Your task to perform on an android device: Show the shopping cart on target. Add asus zenbook to the cart on target, then select checkout. Image 0: 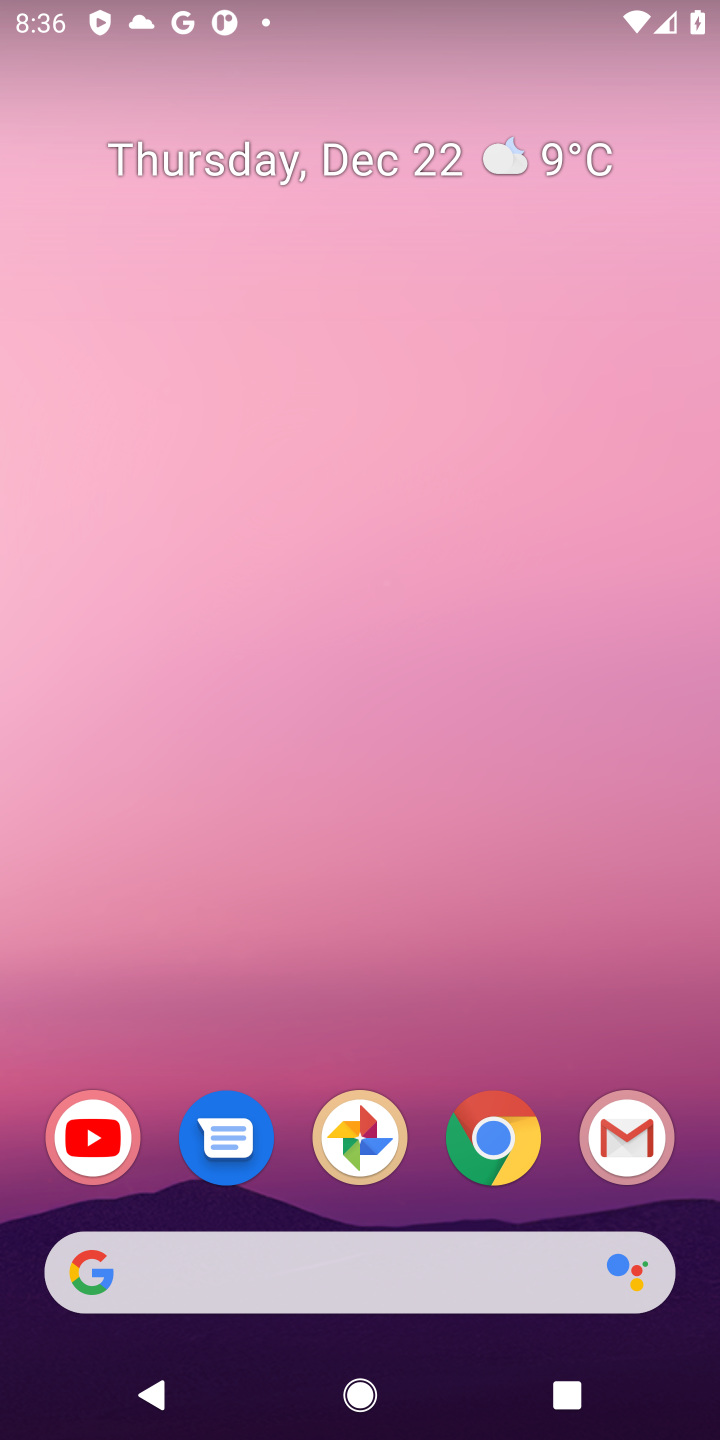
Step 0: click (383, 1294)
Your task to perform on an android device: Show the shopping cart on target. Add asus zenbook to the cart on target, then select checkout. Image 1: 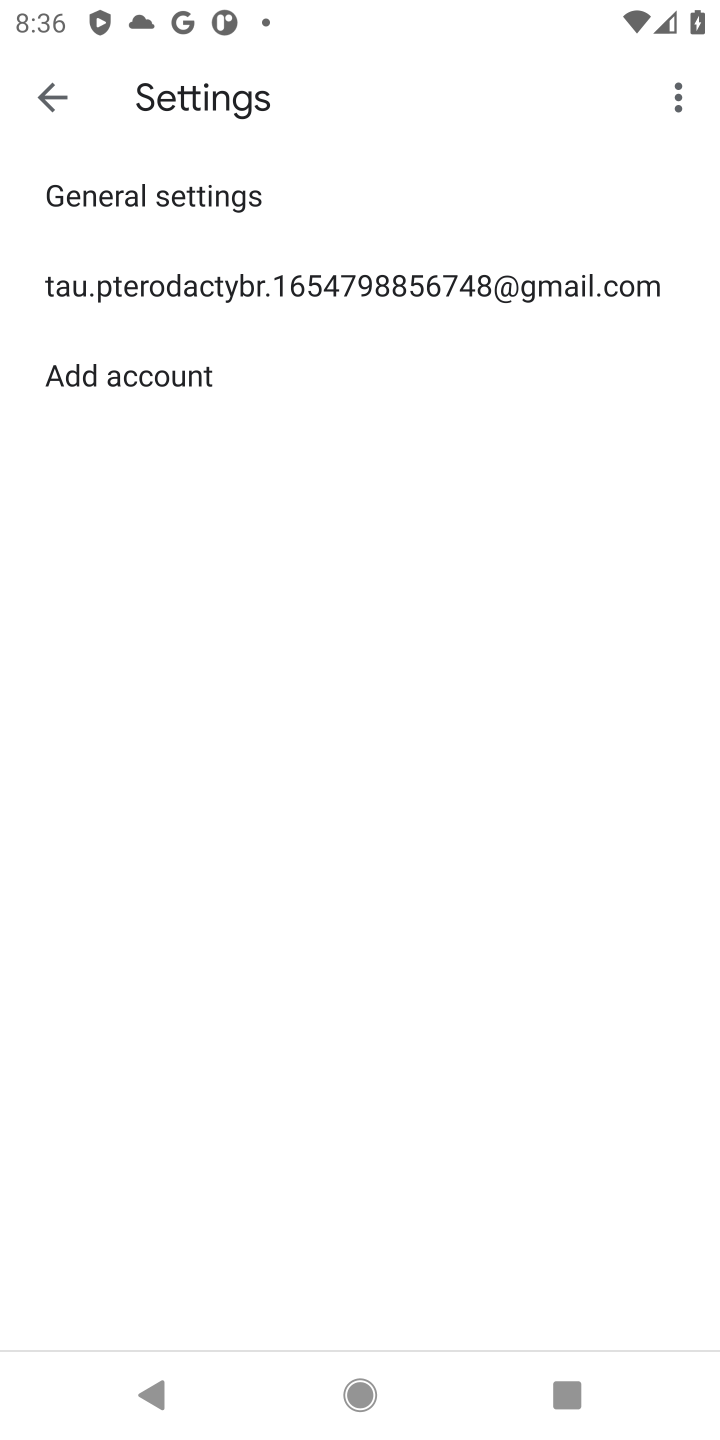
Step 1: press home button
Your task to perform on an android device: Show the shopping cart on target. Add asus zenbook to the cart on target, then select checkout. Image 2: 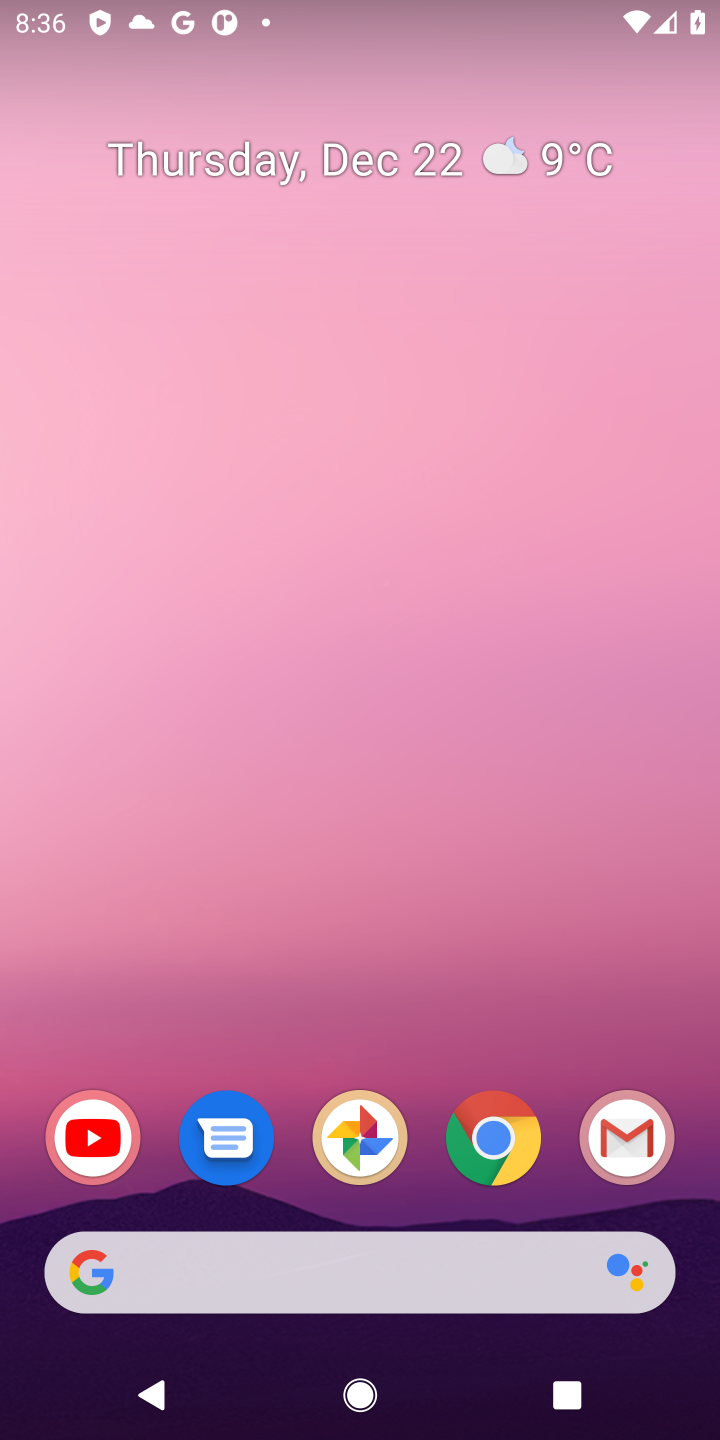
Step 2: click (521, 1164)
Your task to perform on an android device: Show the shopping cart on target. Add asus zenbook to the cart on target, then select checkout. Image 3: 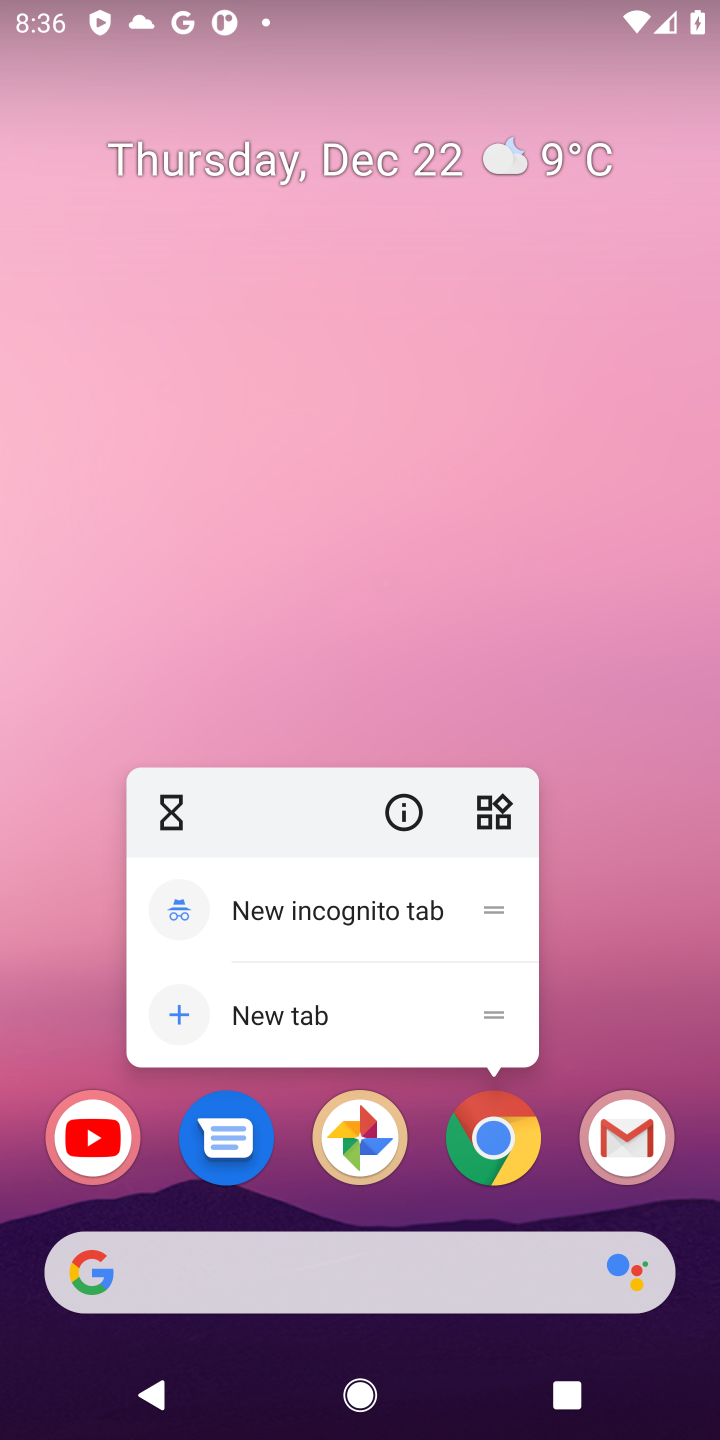
Step 3: click (518, 1155)
Your task to perform on an android device: Show the shopping cart on target. Add asus zenbook to the cart on target, then select checkout. Image 4: 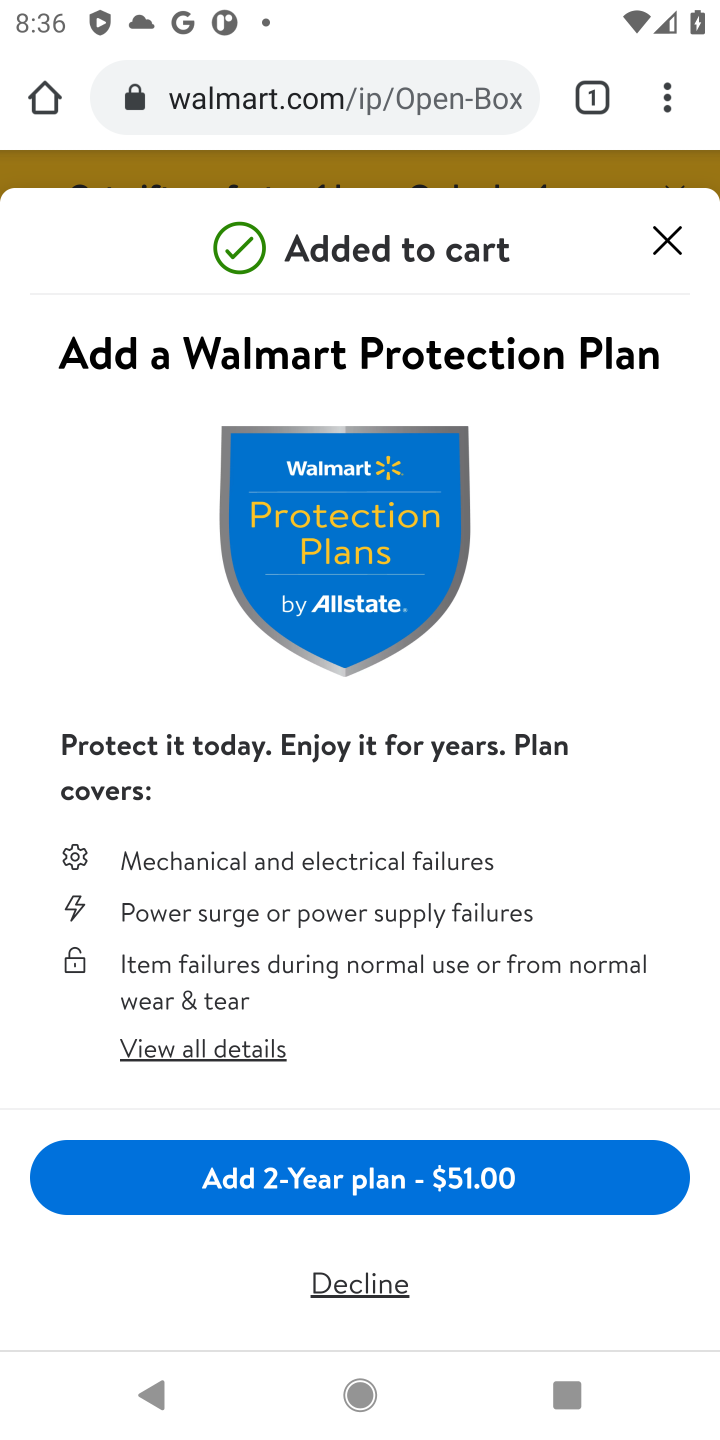
Step 4: click (316, 103)
Your task to perform on an android device: Show the shopping cart on target. Add asus zenbook to the cart on target, then select checkout. Image 5: 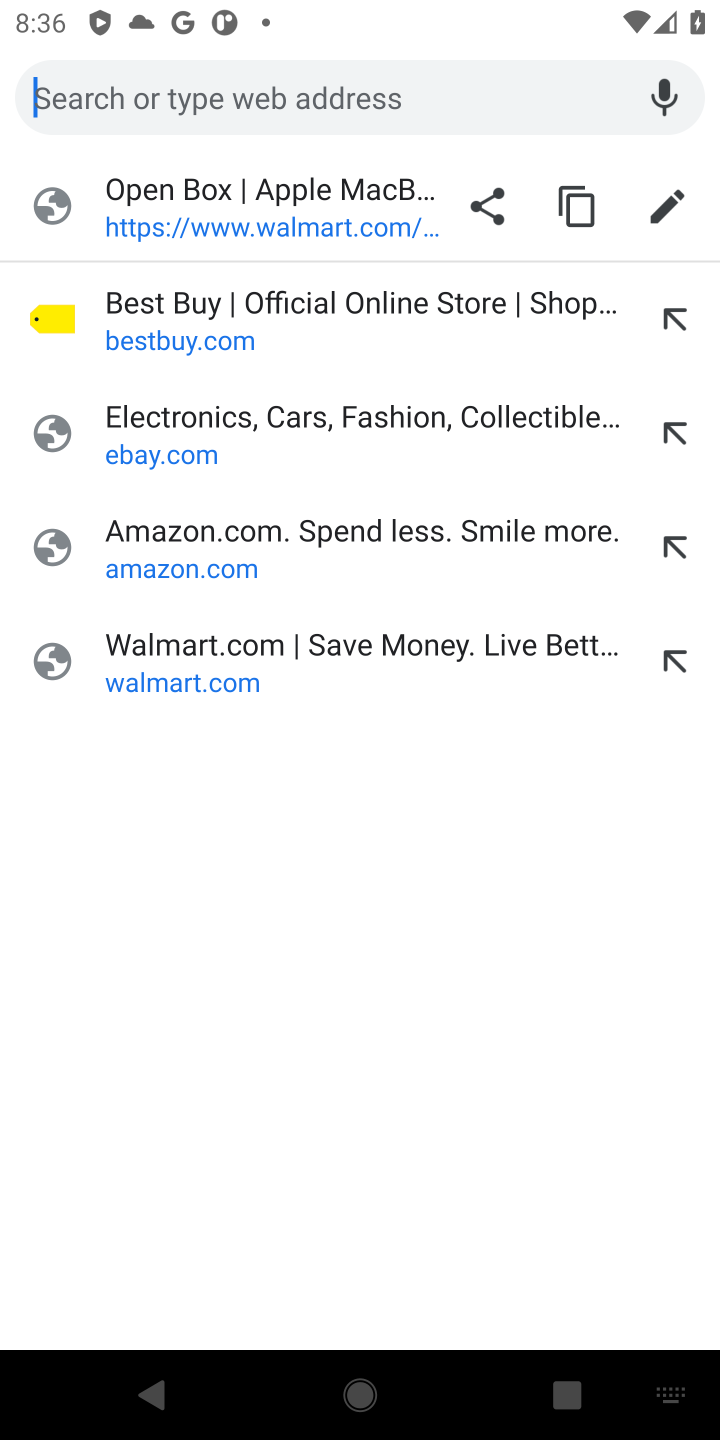
Step 5: type "target"
Your task to perform on an android device: Show the shopping cart on target. Add asus zenbook to the cart on target, then select checkout. Image 6: 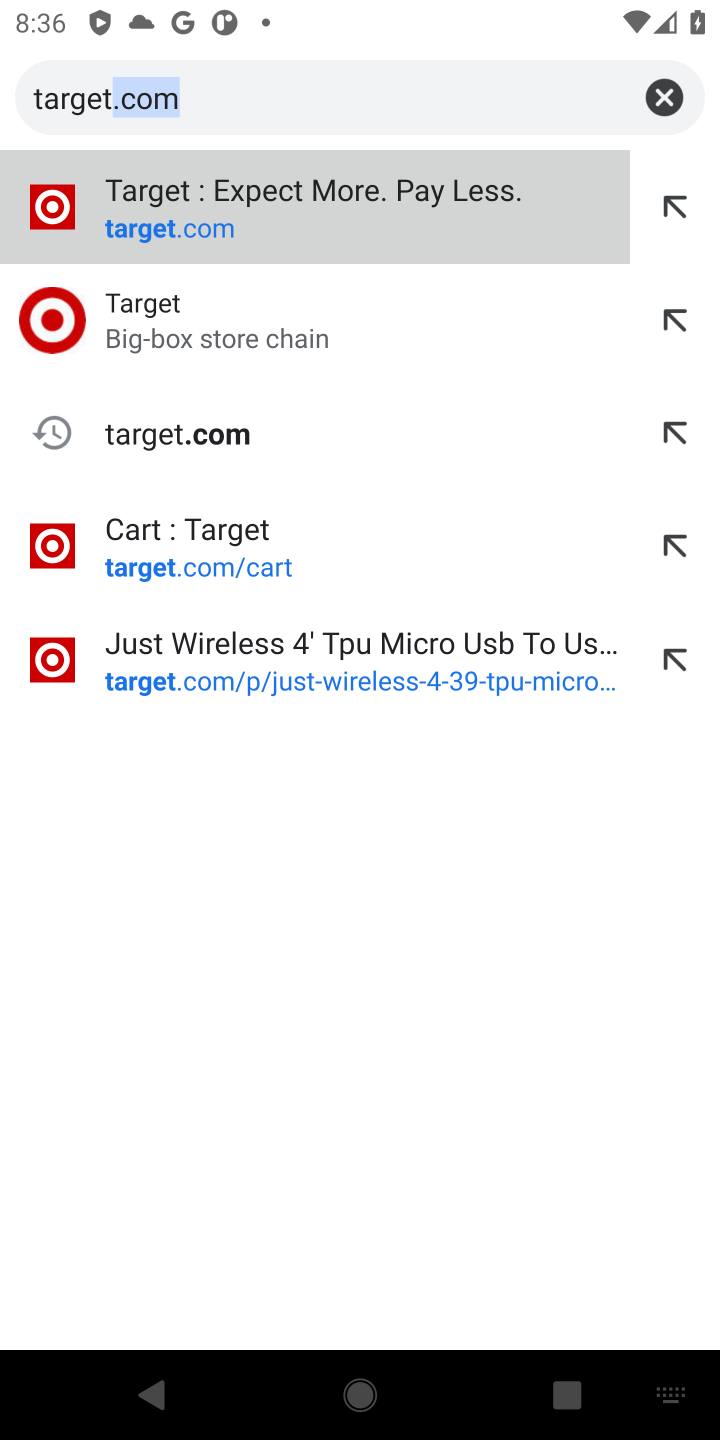
Step 6: click (282, 244)
Your task to perform on an android device: Show the shopping cart on target. Add asus zenbook to the cart on target, then select checkout. Image 7: 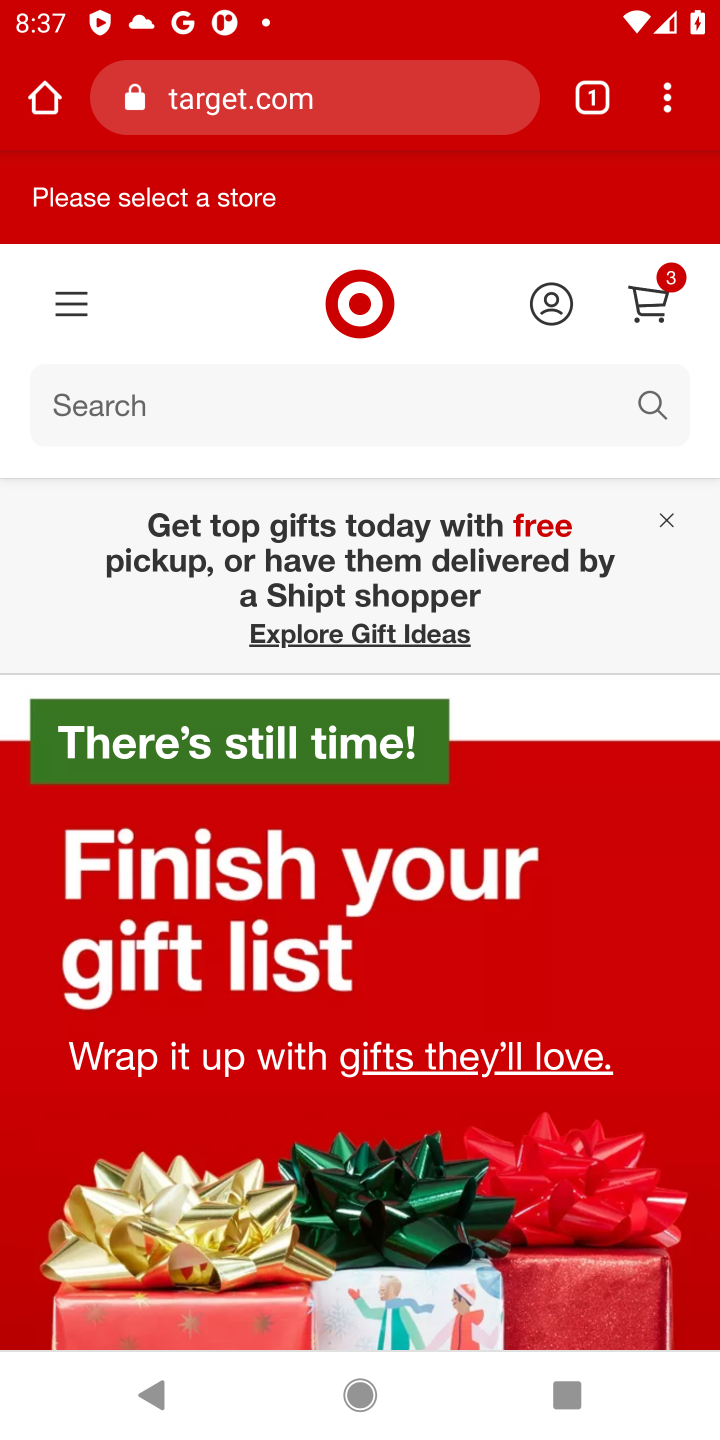
Step 7: click (512, 412)
Your task to perform on an android device: Show the shopping cart on target. Add asus zenbook to the cart on target, then select checkout. Image 8: 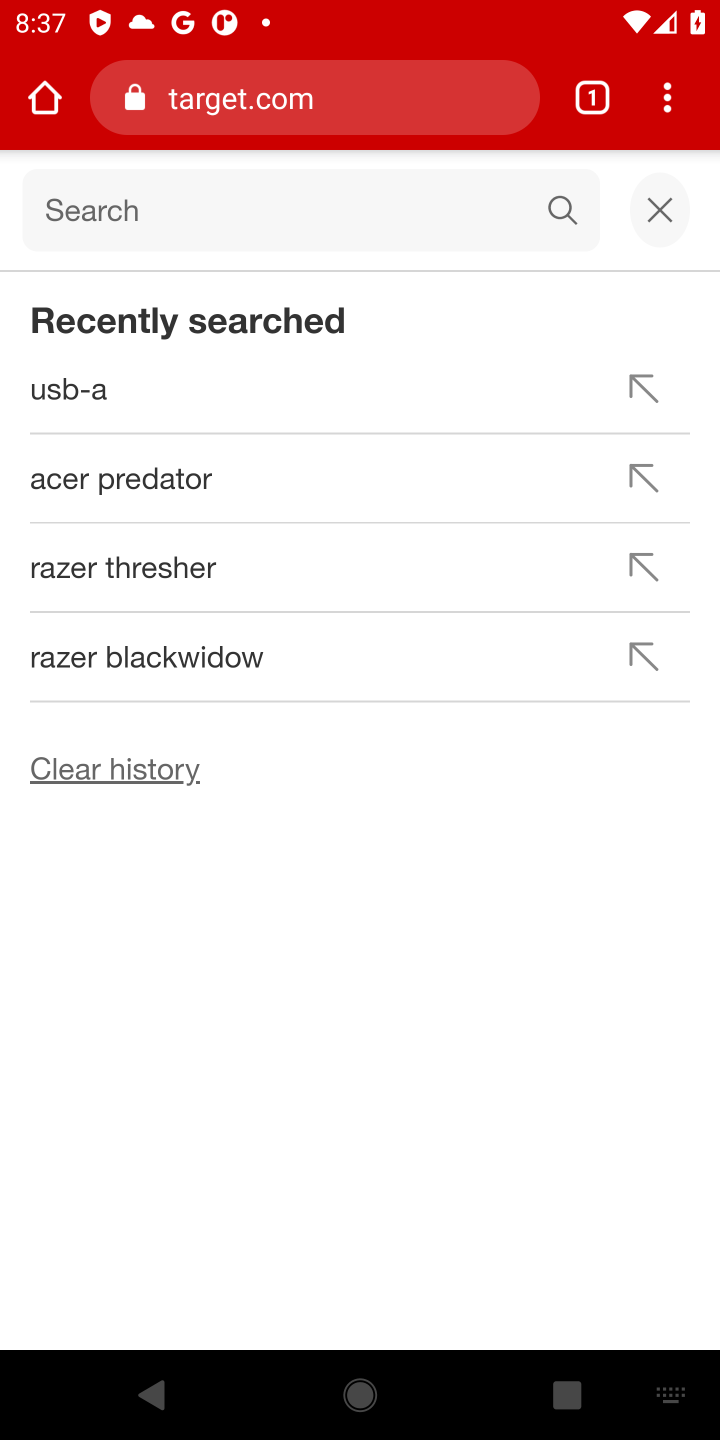
Step 8: type "asus zenbook"
Your task to perform on an android device: Show the shopping cart on target. Add asus zenbook to the cart on target, then select checkout. Image 9: 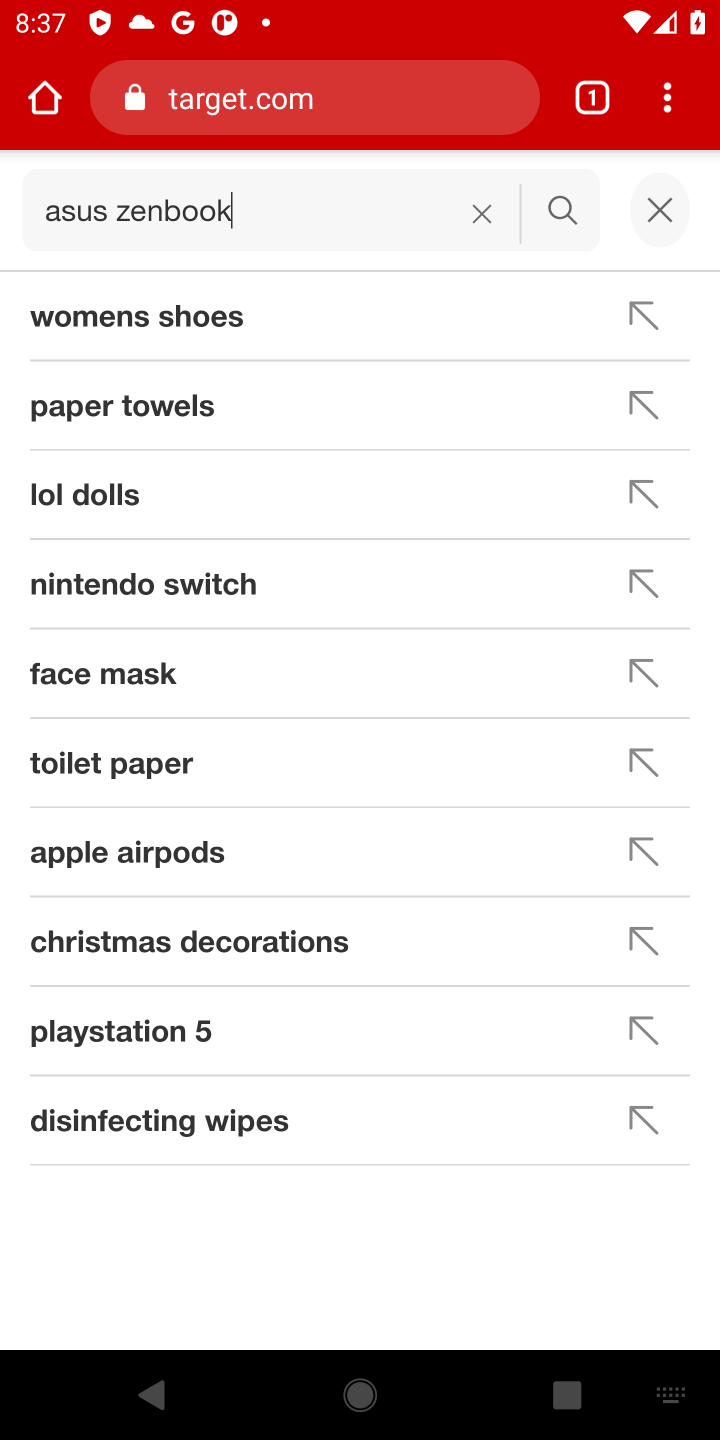
Step 9: press enter
Your task to perform on an android device: Show the shopping cart on target. Add asus zenbook to the cart on target, then select checkout. Image 10: 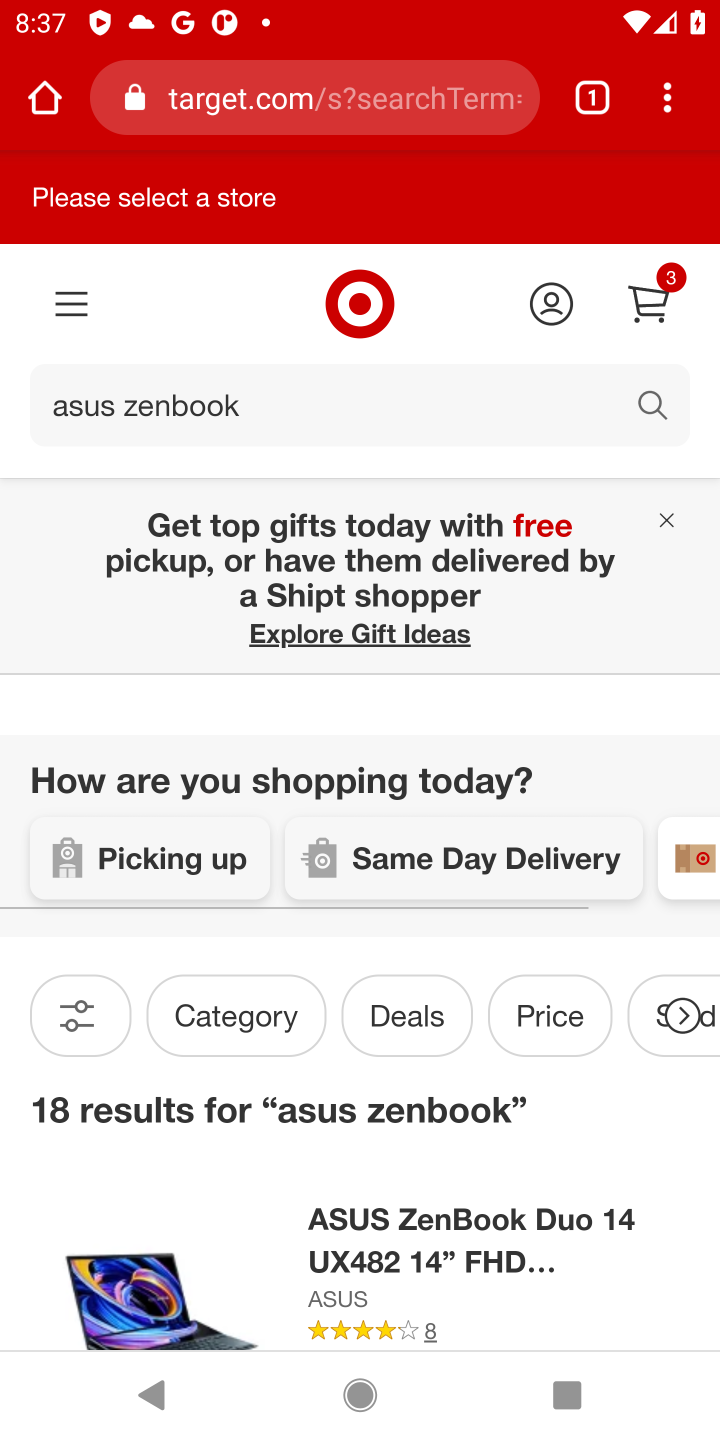
Step 10: drag from (528, 1195) to (594, 695)
Your task to perform on an android device: Show the shopping cart on target. Add asus zenbook to the cart on target, then select checkout. Image 11: 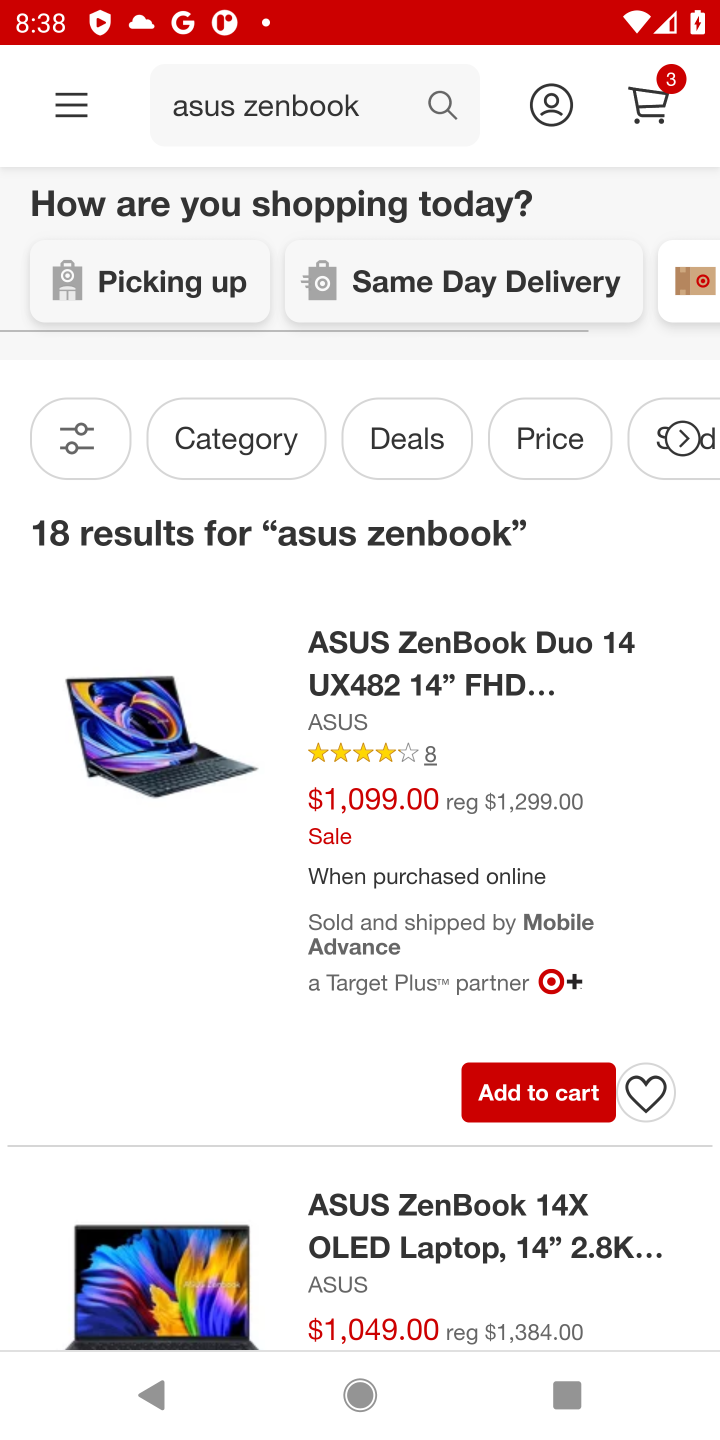
Step 11: click (521, 1100)
Your task to perform on an android device: Show the shopping cart on target. Add asus zenbook to the cart on target, then select checkout. Image 12: 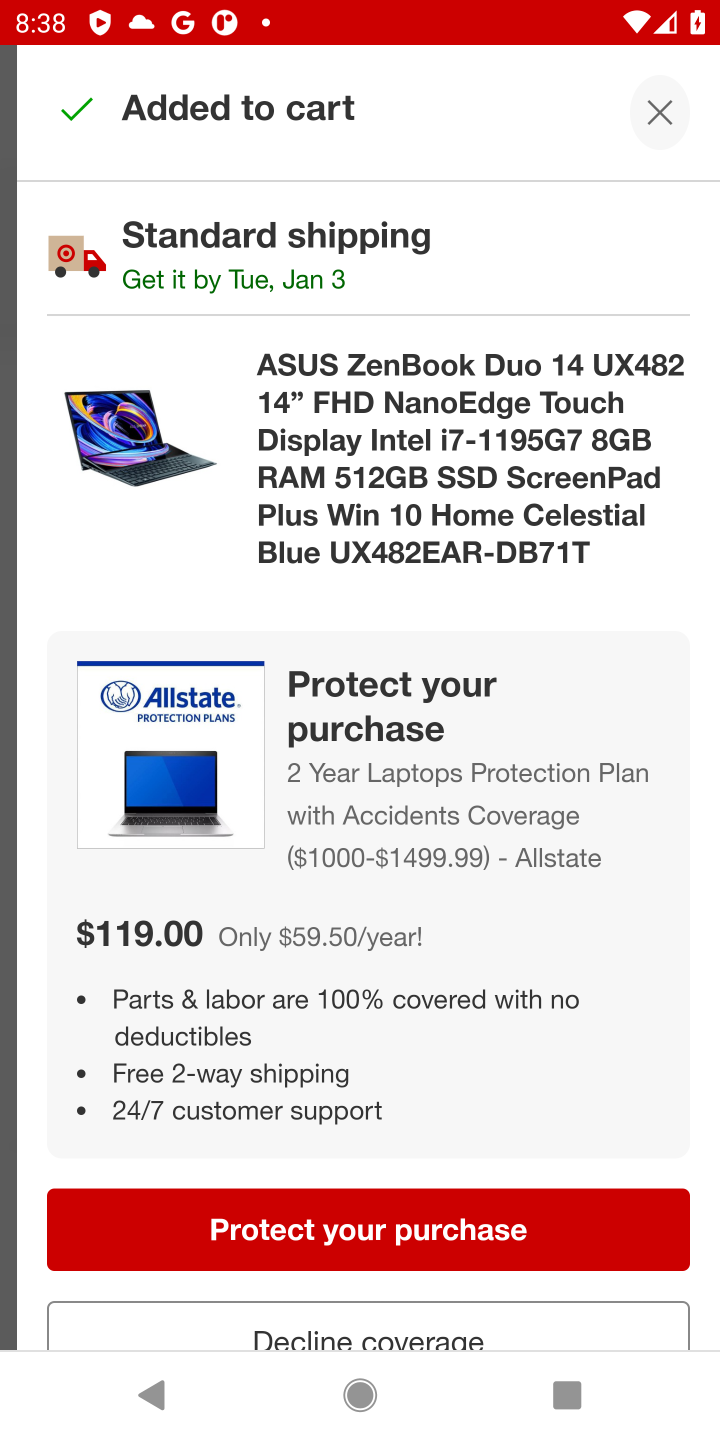
Step 12: click (399, 1246)
Your task to perform on an android device: Show the shopping cart on target. Add asus zenbook to the cart on target, then select checkout. Image 13: 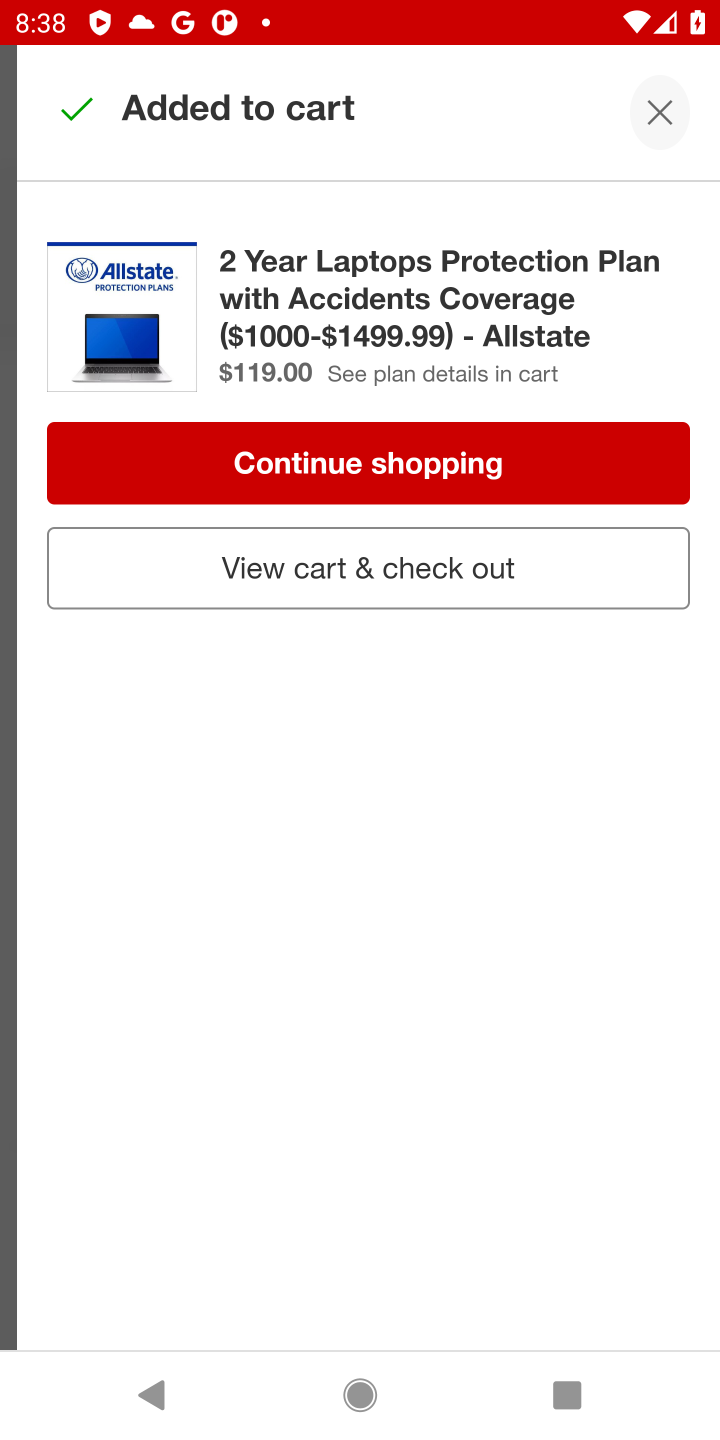
Step 13: click (429, 587)
Your task to perform on an android device: Show the shopping cart on target. Add asus zenbook to the cart on target, then select checkout. Image 14: 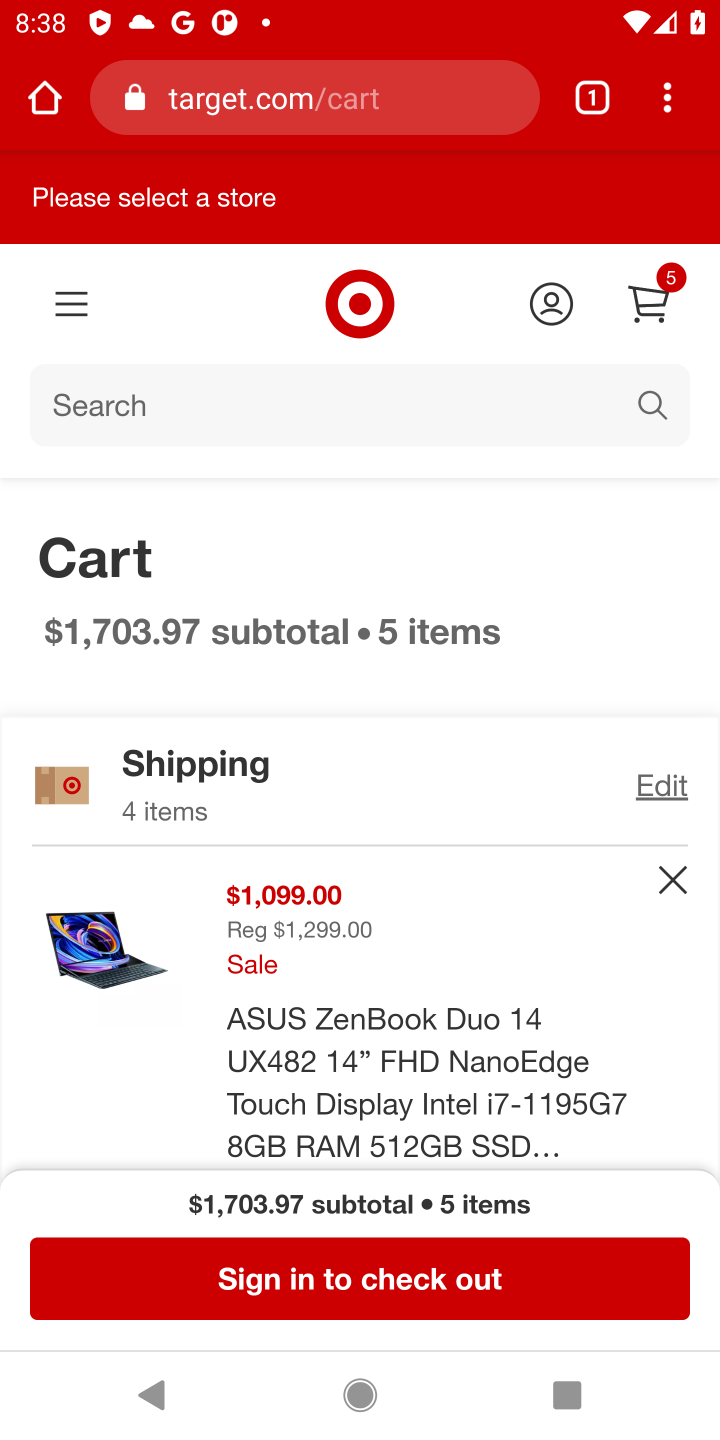
Step 14: click (394, 1290)
Your task to perform on an android device: Show the shopping cart on target. Add asus zenbook to the cart on target, then select checkout. Image 15: 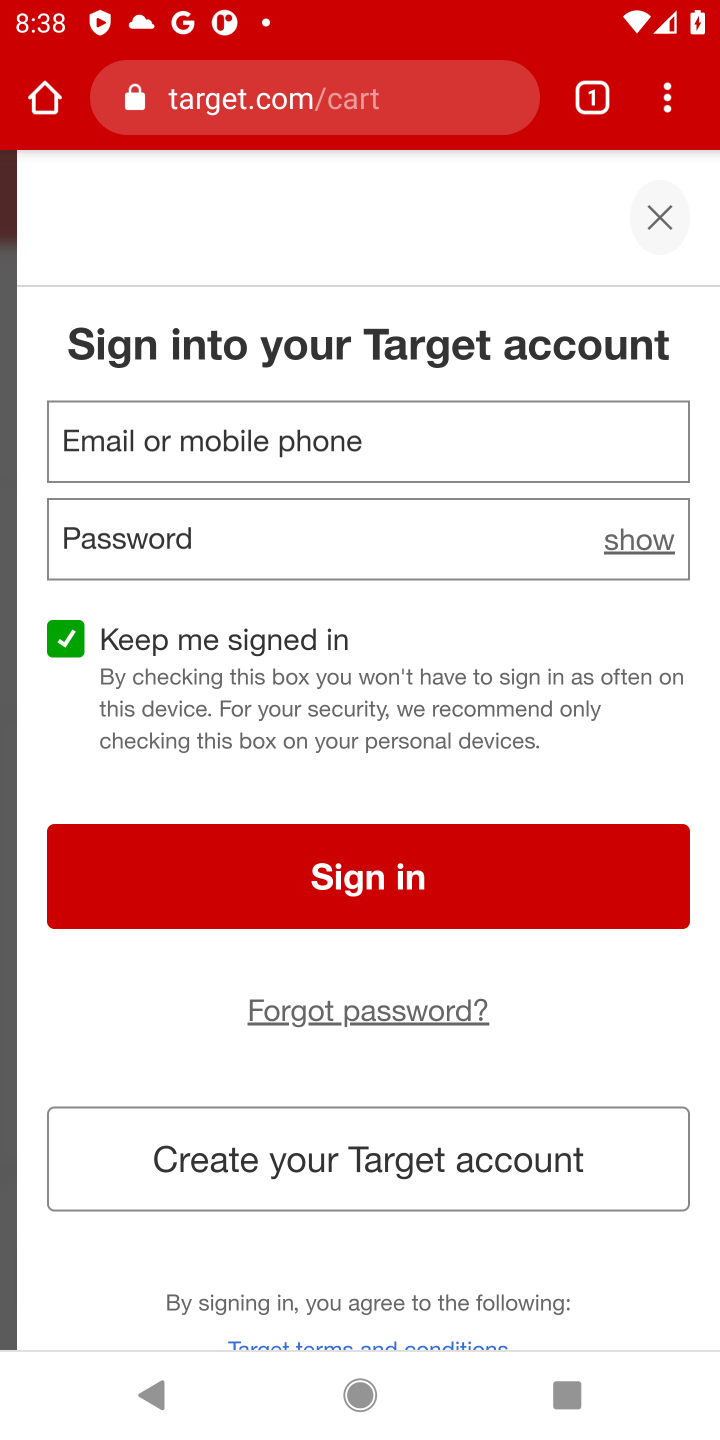
Step 15: task complete